Your task to perform on an android device: Search for sushi restaurants on Maps Image 0: 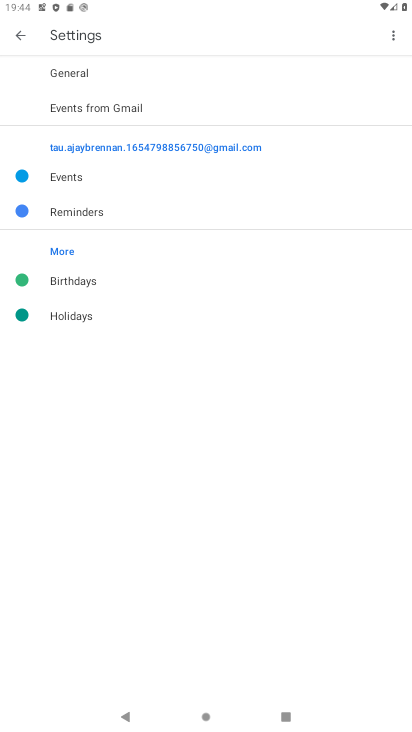
Step 0: press home button
Your task to perform on an android device: Search for sushi restaurants on Maps Image 1: 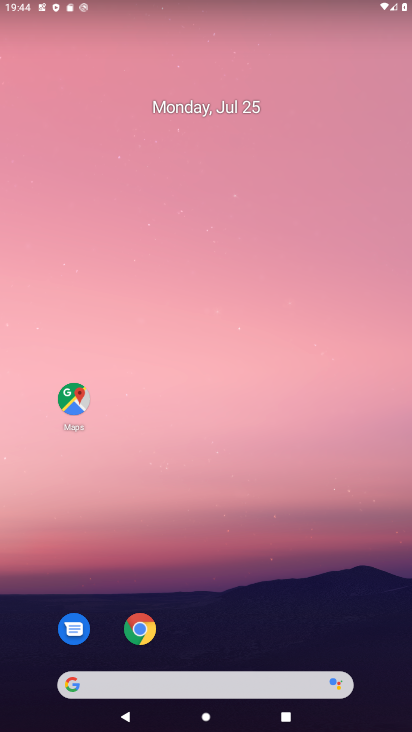
Step 1: click (62, 400)
Your task to perform on an android device: Search for sushi restaurants on Maps Image 2: 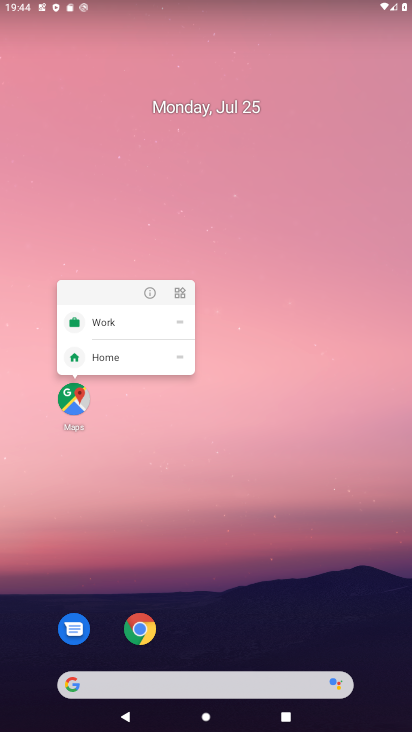
Step 2: click (66, 401)
Your task to perform on an android device: Search for sushi restaurants on Maps Image 3: 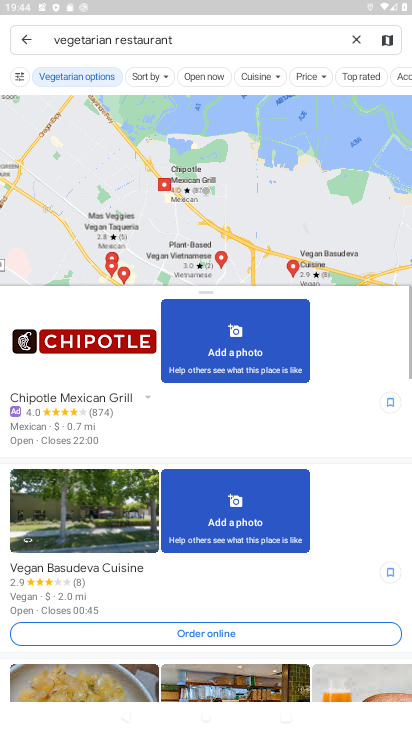
Step 3: click (28, 38)
Your task to perform on an android device: Search for sushi restaurants on Maps Image 4: 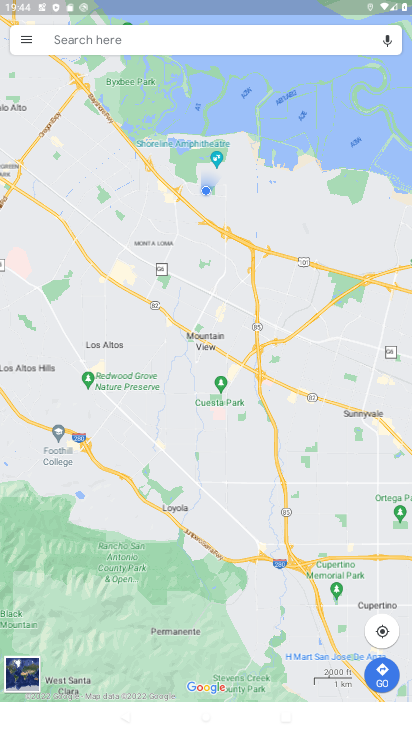
Step 4: click (74, 37)
Your task to perform on an android device: Search for sushi restaurants on Maps Image 5: 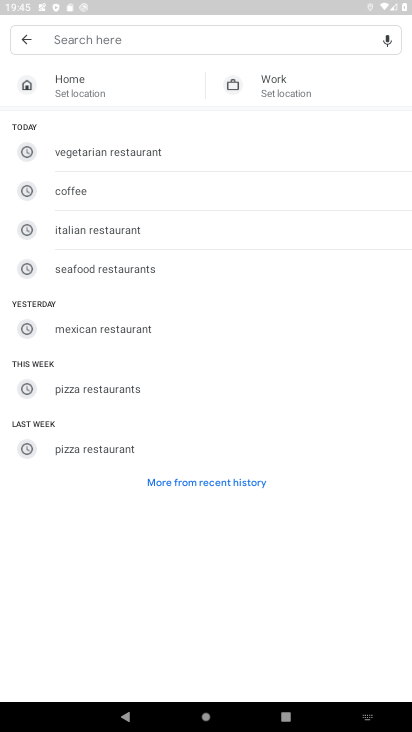
Step 5: type "sushi restaurants"
Your task to perform on an android device: Search for sushi restaurants on Maps Image 6: 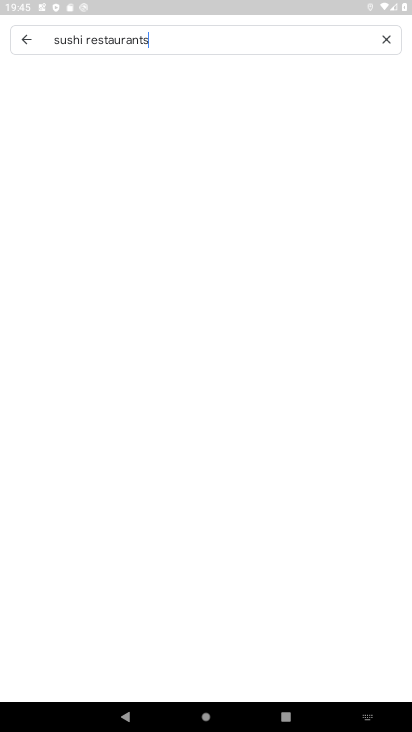
Step 6: type ""
Your task to perform on an android device: Search for sushi restaurants on Maps Image 7: 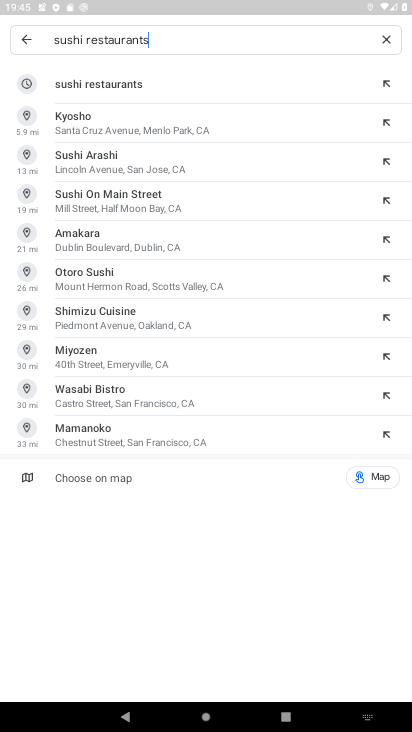
Step 7: type ""
Your task to perform on an android device: Search for sushi restaurants on Maps Image 8: 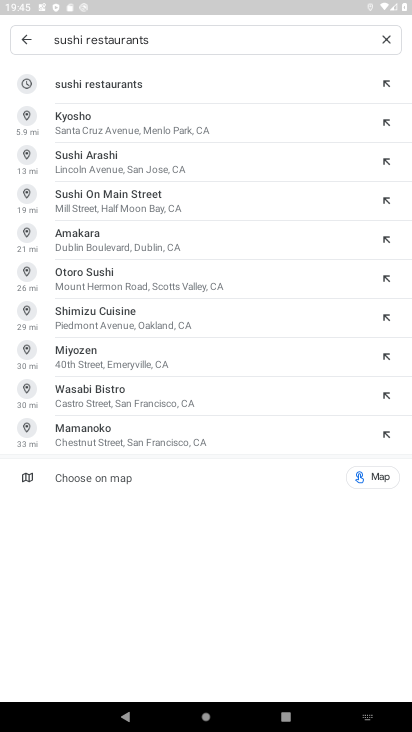
Step 8: type ""
Your task to perform on an android device: Search for sushi restaurants on Maps Image 9: 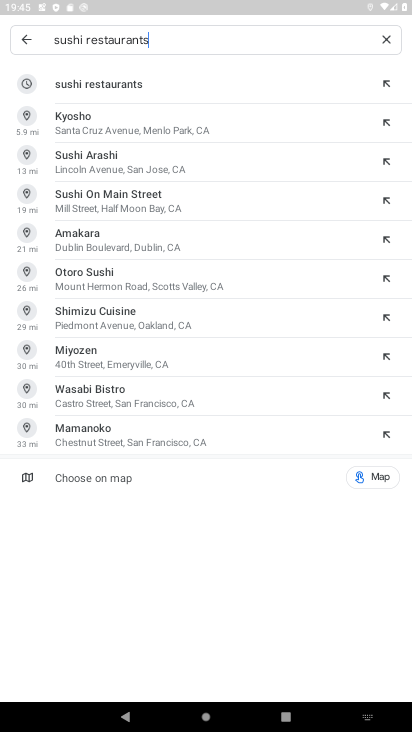
Step 9: click (114, 82)
Your task to perform on an android device: Search for sushi restaurants on Maps Image 10: 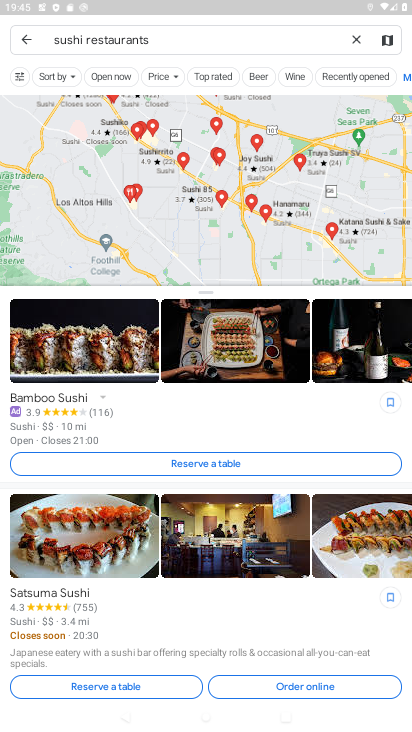
Step 10: task complete